Your task to perform on an android device: check out phone information Image 0: 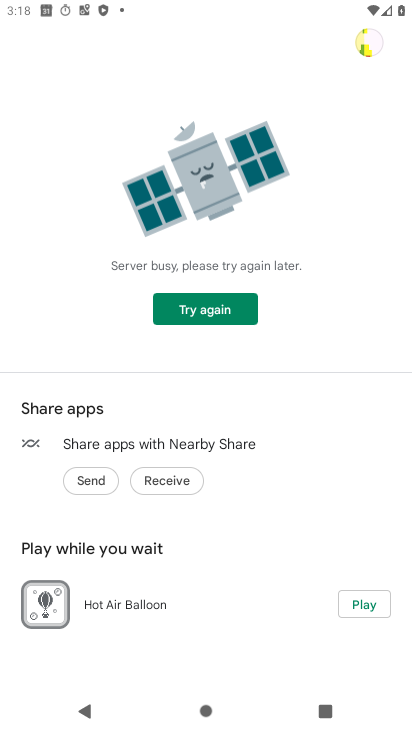
Step 0: press home button
Your task to perform on an android device: check out phone information Image 1: 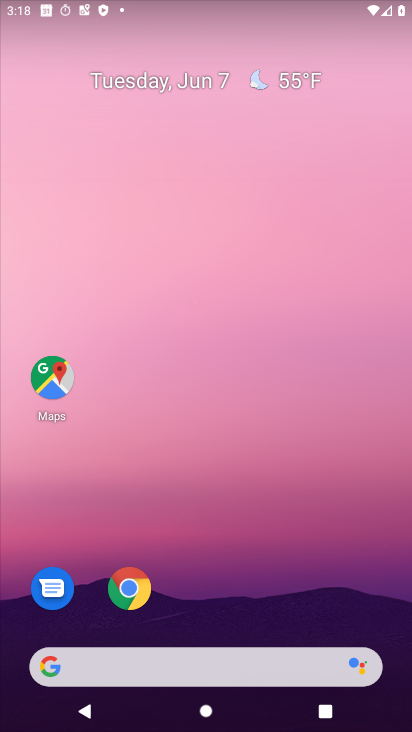
Step 1: drag from (247, 632) to (268, 249)
Your task to perform on an android device: check out phone information Image 2: 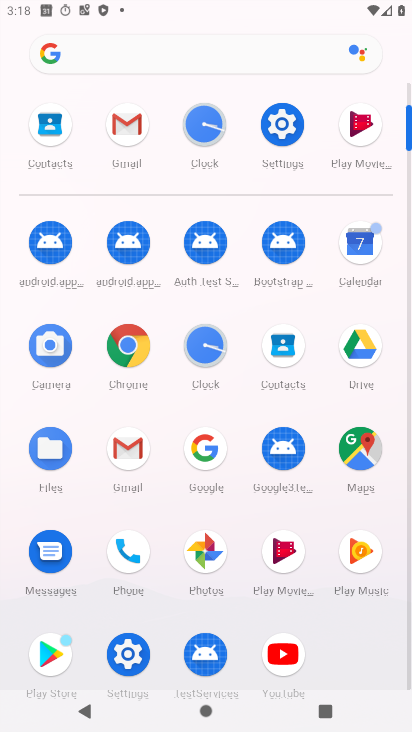
Step 2: click (301, 136)
Your task to perform on an android device: check out phone information Image 3: 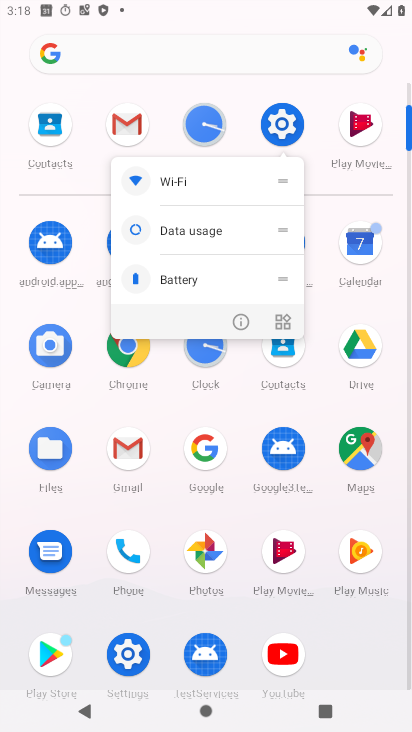
Step 3: click (289, 128)
Your task to perform on an android device: check out phone information Image 4: 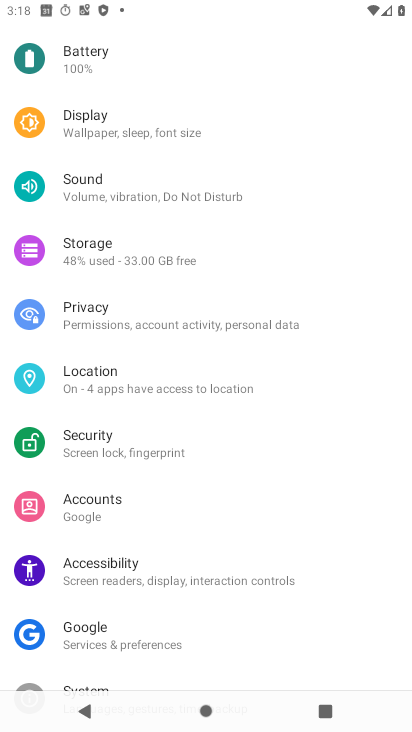
Step 4: drag from (326, 536) to (327, 37)
Your task to perform on an android device: check out phone information Image 5: 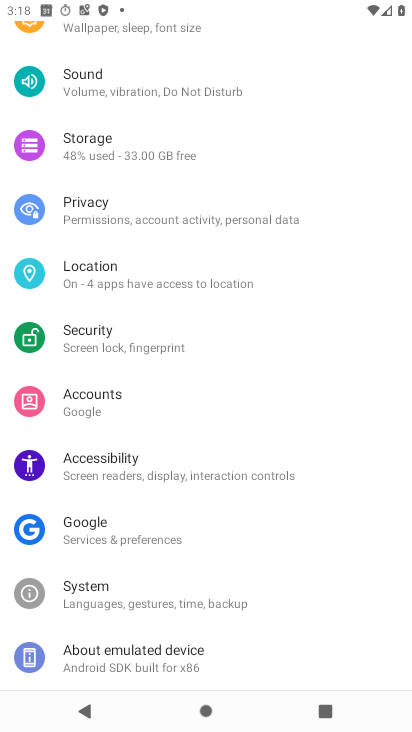
Step 5: click (118, 660)
Your task to perform on an android device: check out phone information Image 6: 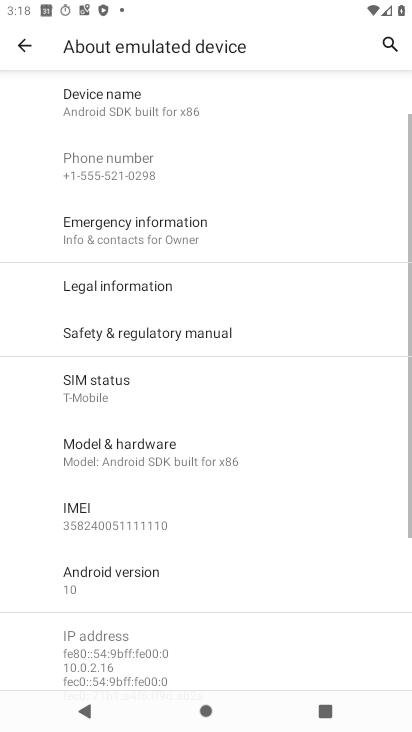
Step 6: drag from (281, 558) to (300, 10)
Your task to perform on an android device: check out phone information Image 7: 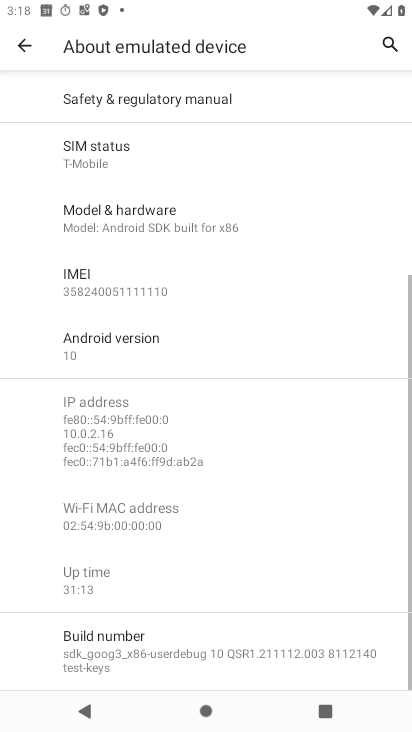
Step 7: press home button
Your task to perform on an android device: check out phone information Image 8: 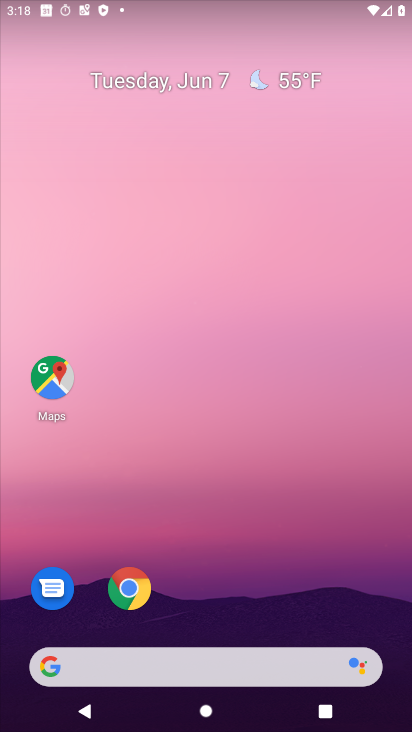
Step 8: drag from (270, 625) to (239, 203)
Your task to perform on an android device: check out phone information Image 9: 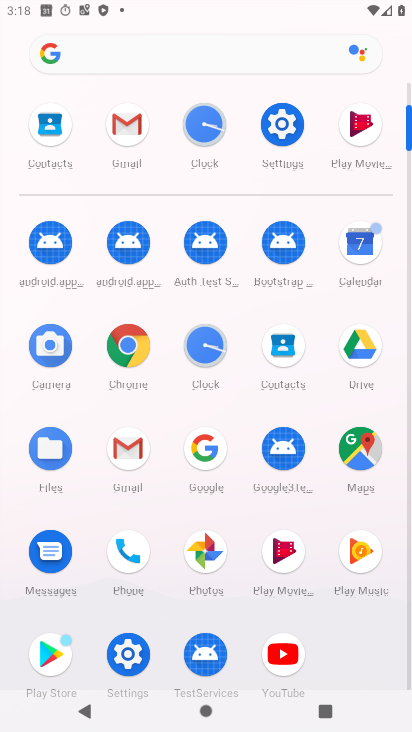
Step 9: click (285, 140)
Your task to perform on an android device: check out phone information Image 10: 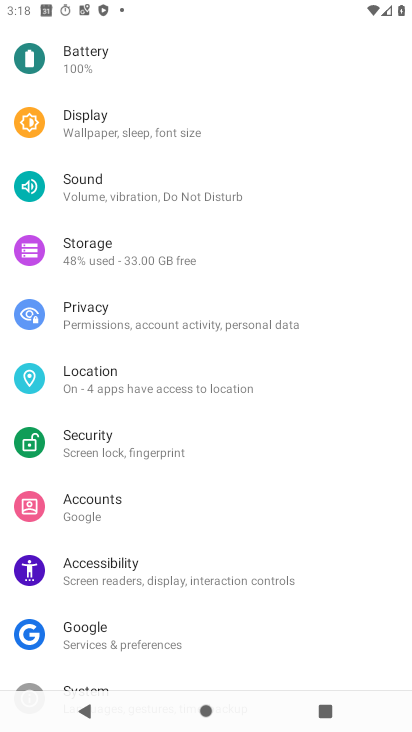
Step 10: drag from (372, 570) to (359, 12)
Your task to perform on an android device: check out phone information Image 11: 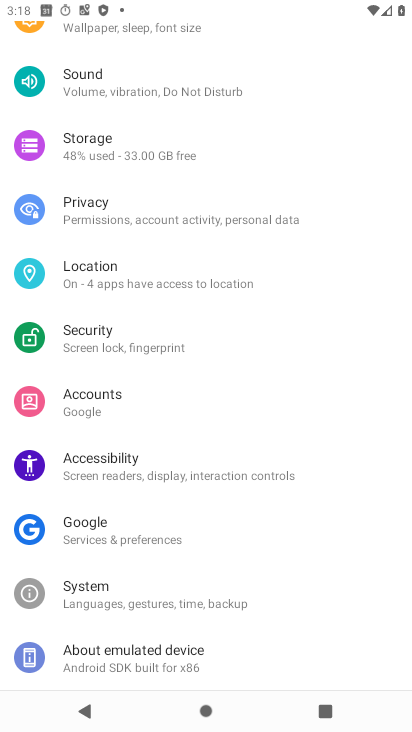
Step 11: click (109, 647)
Your task to perform on an android device: check out phone information Image 12: 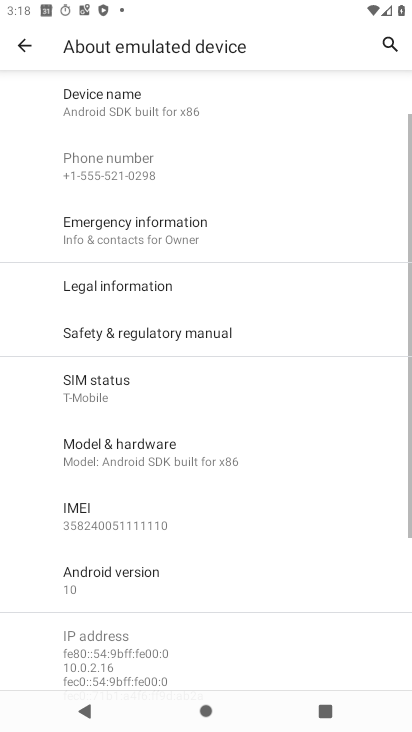
Step 12: task complete